Your task to perform on an android device: Go to Android settings Image 0: 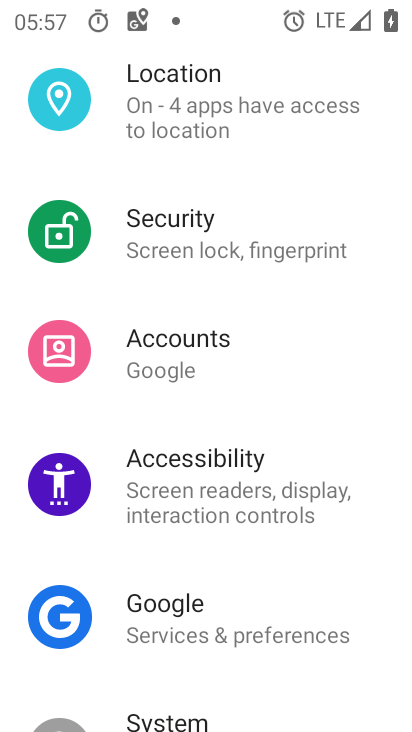
Step 0: press home button
Your task to perform on an android device: Go to Android settings Image 1: 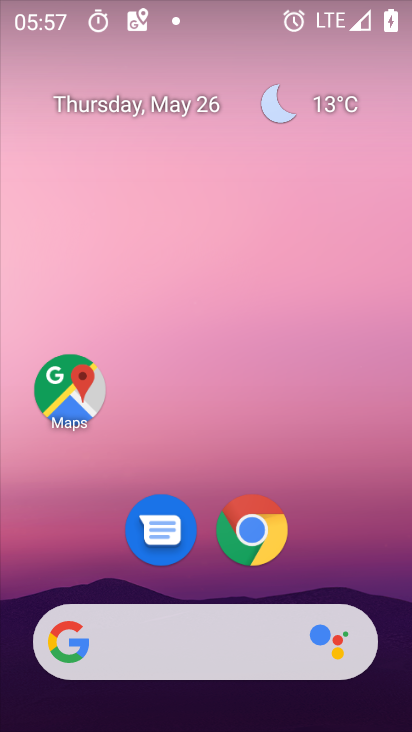
Step 1: drag from (307, 585) to (333, 20)
Your task to perform on an android device: Go to Android settings Image 2: 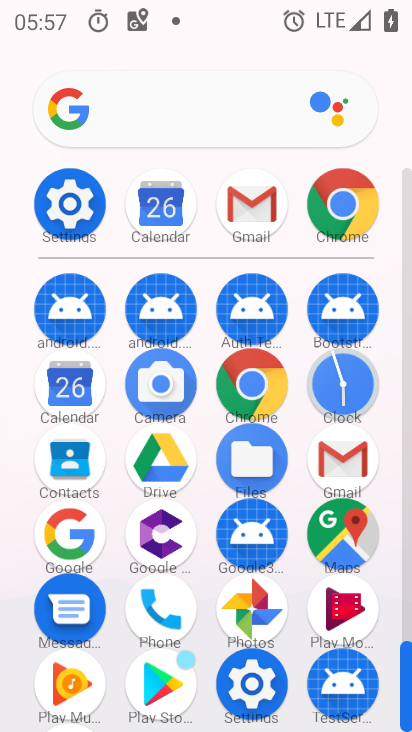
Step 2: click (67, 182)
Your task to perform on an android device: Go to Android settings Image 3: 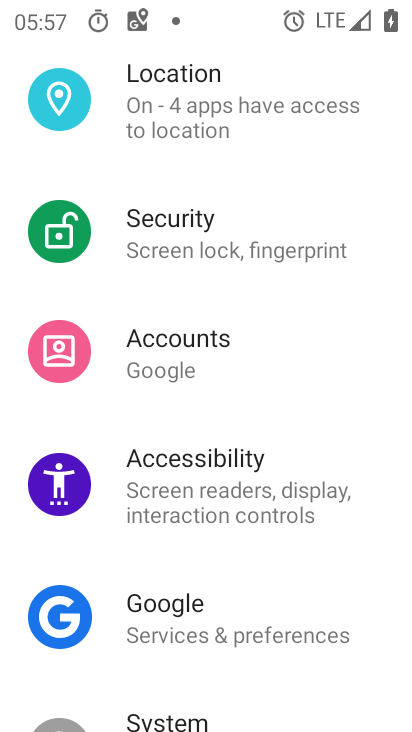
Step 3: drag from (255, 667) to (326, 69)
Your task to perform on an android device: Go to Android settings Image 4: 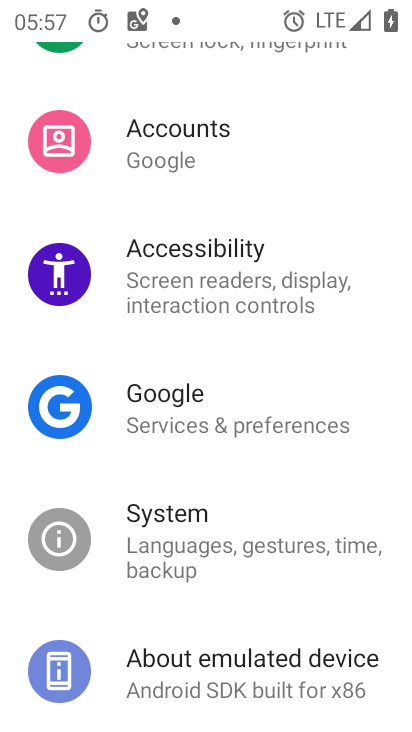
Step 4: click (274, 658)
Your task to perform on an android device: Go to Android settings Image 5: 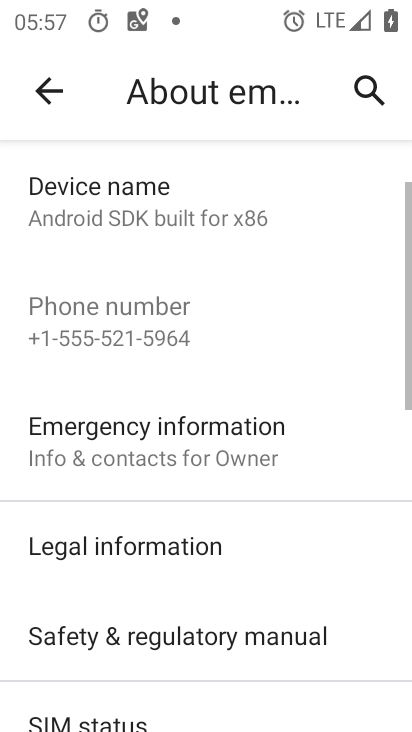
Step 5: drag from (157, 633) to (207, 220)
Your task to perform on an android device: Go to Android settings Image 6: 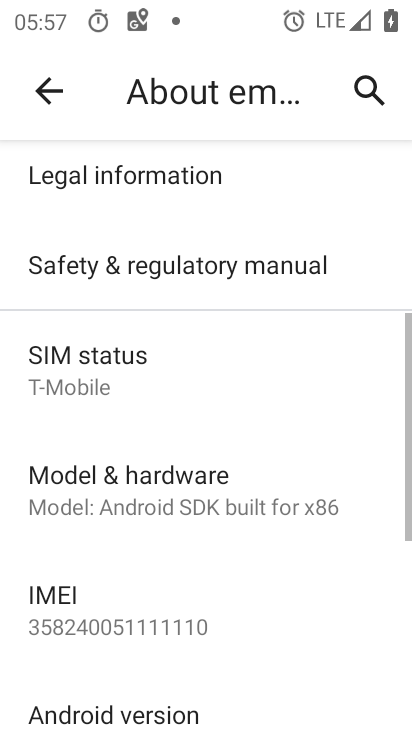
Step 6: drag from (203, 454) to (221, 311)
Your task to perform on an android device: Go to Android settings Image 7: 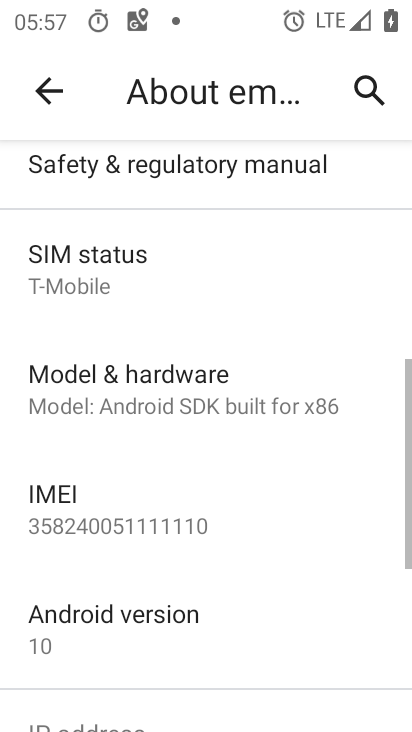
Step 7: click (208, 612)
Your task to perform on an android device: Go to Android settings Image 8: 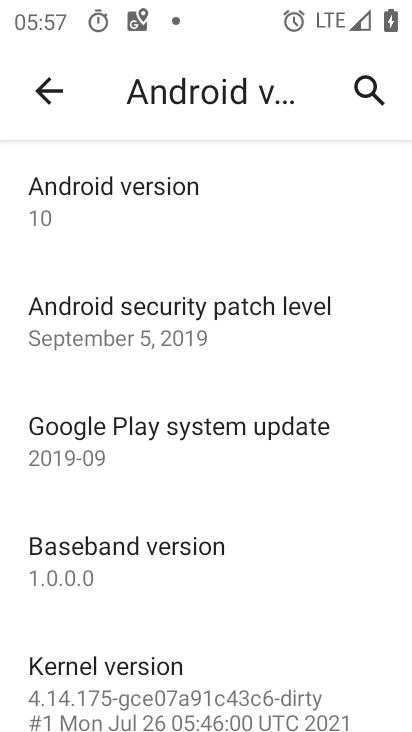
Step 8: task complete